Your task to perform on an android device: set the stopwatch Image 0: 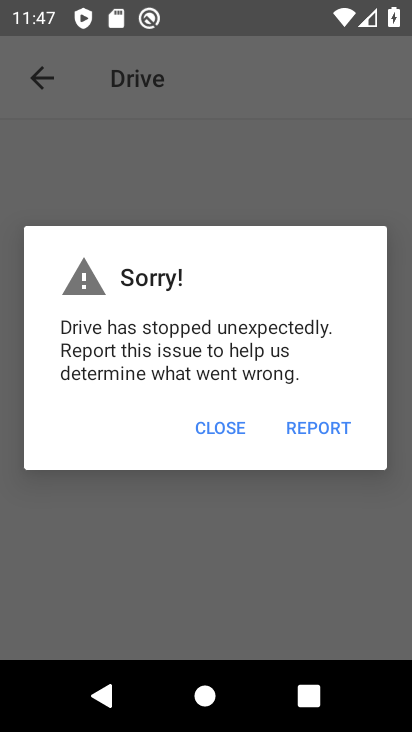
Step 0: press home button
Your task to perform on an android device: set the stopwatch Image 1: 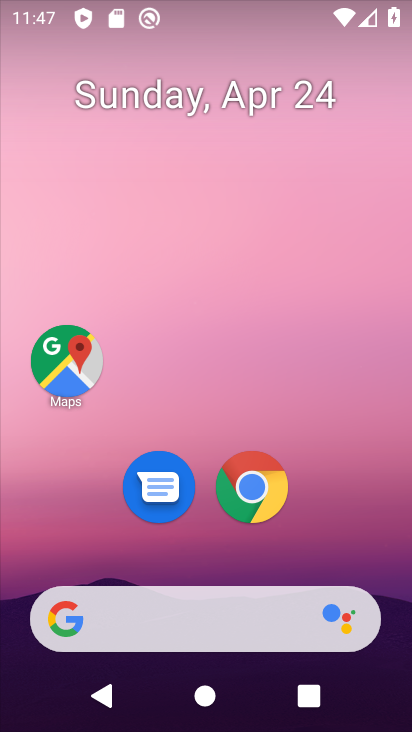
Step 1: drag from (191, 486) to (246, 76)
Your task to perform on an android device: set the stopwatch Image 2: 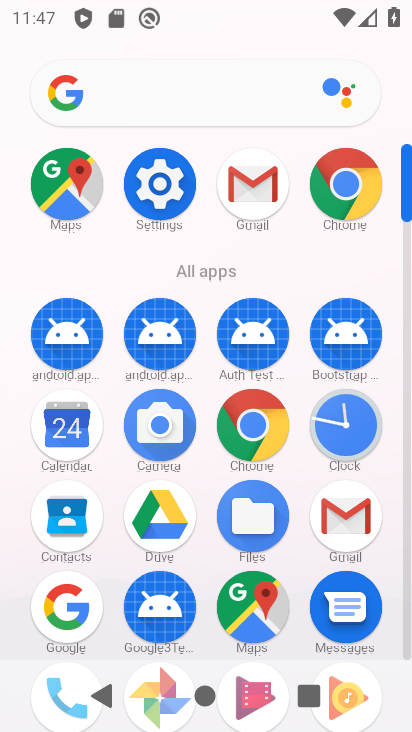
Step 2: click (341, 427)
Your task to perform on an android device: set the stopwatch Image 3: 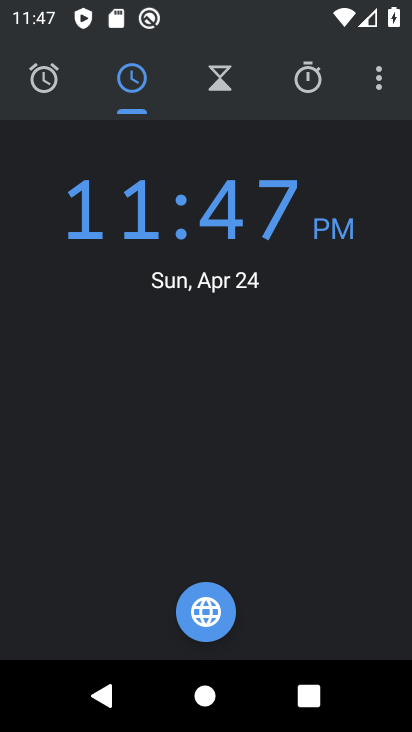
Step 3: click (307, 72)
Your task to perform on an android device: set the stopwatch Image 4: 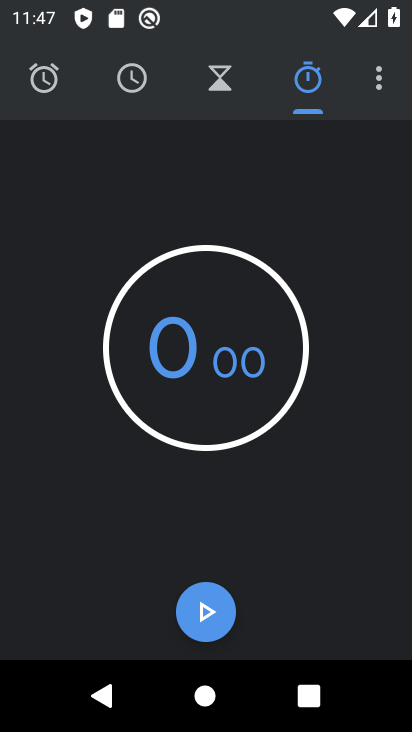
Step 4: click (212, 603)
Your task to perform on an android device: set the stopwatch Image 5: 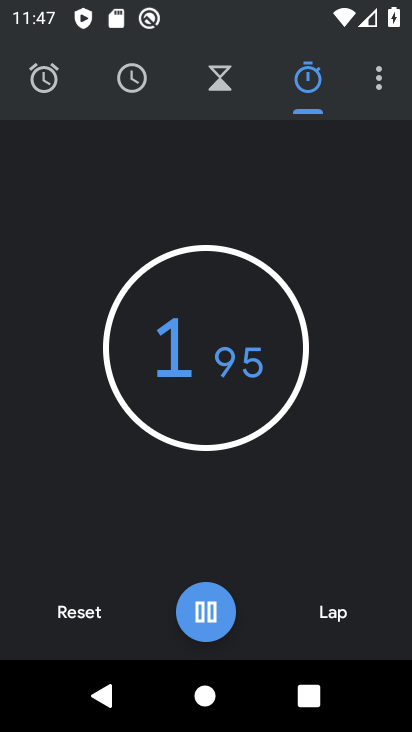
Step 5: task complete